Your task to perform on an android device: Open eBay Image 0: 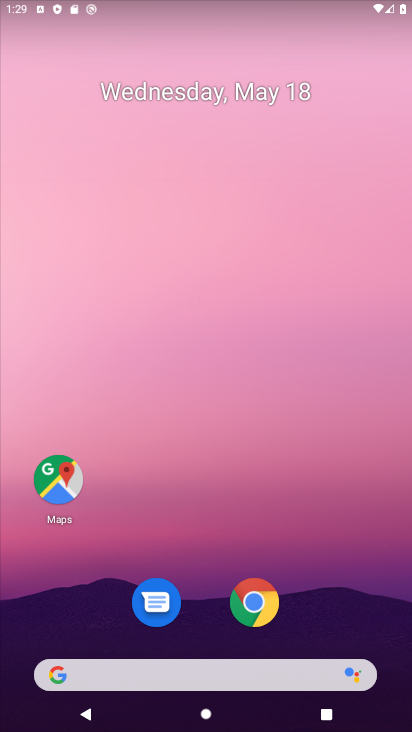
Step 0: click (243, 686)
Your task to perform on an android device: Open eBay Image 1: 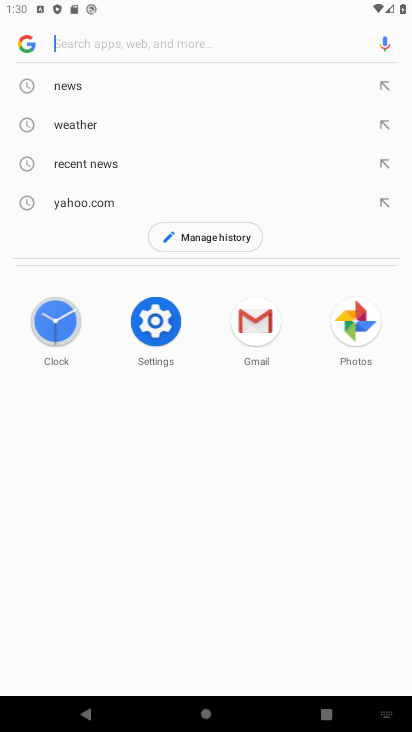
Step 1: type "ebay"
Your task to perform on an android device: Open eBay Image 2: 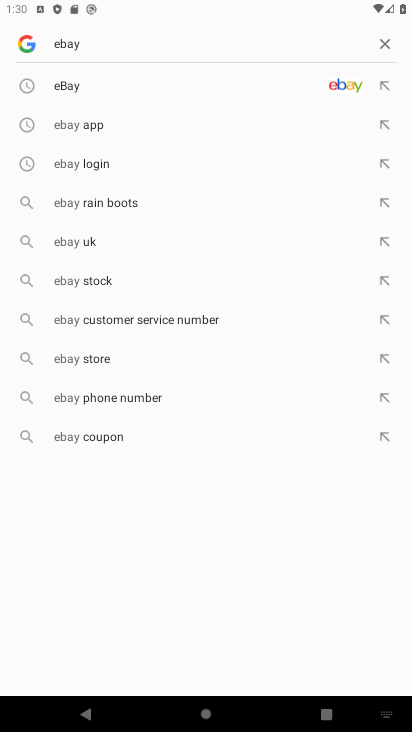
Step 2: click (353, 88)
Your task to perform on an android device: Open eBay Image 3: 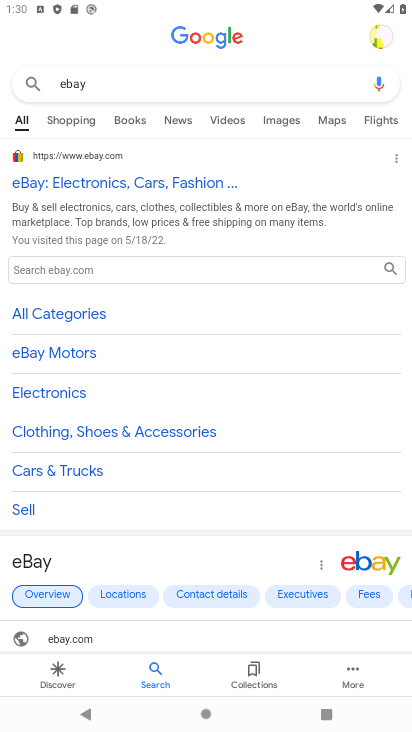
Step 3: click (105, 160)
Your task to perform on an android device: Open eBay Image 4: 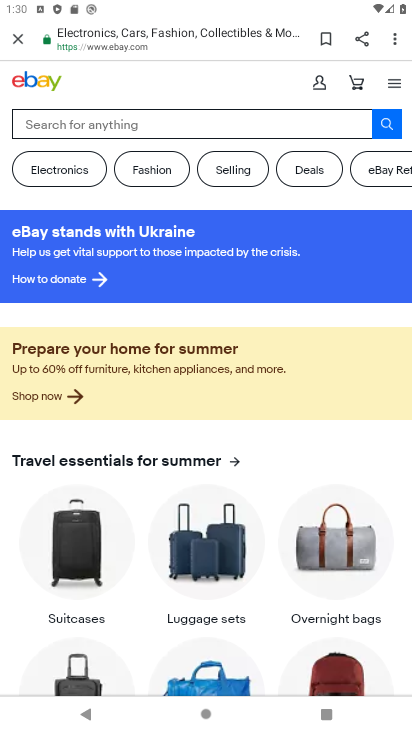
Step 4: task complete